Your task to perform on an android device: delete the emails in spam in the gmail app Image 0: 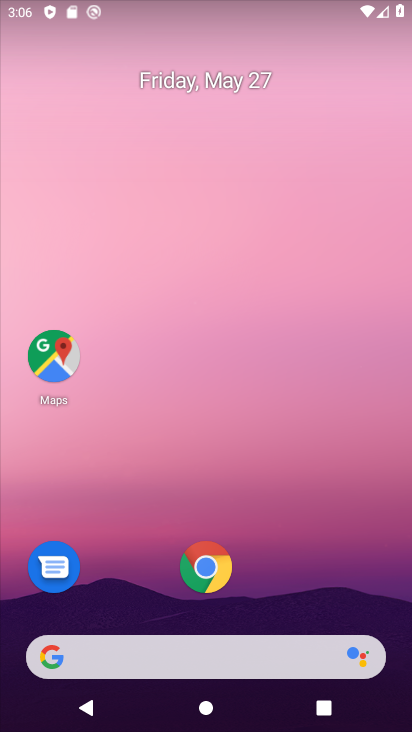
Step 0: drag from (147, 566) to (262, 141)
Your task to perform on an android device: delete the emails in spam in the gmail app Image 1: 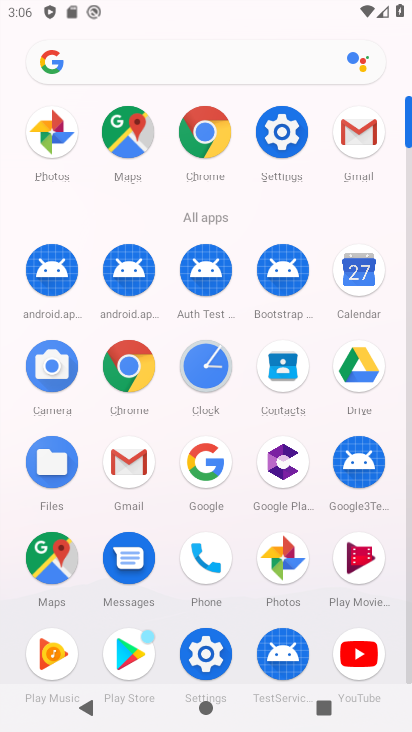
Step 1: click (351, 132)
Your task to perform on an android device: delete the emails in spam in the gmail app Image 2: 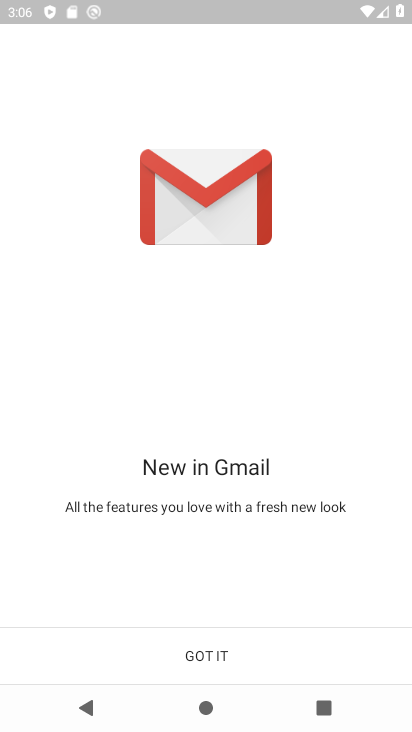
Step 2: click (205, 661)
Your task to perform on an android device: delete the emails in spam in the gmail app Image 3: 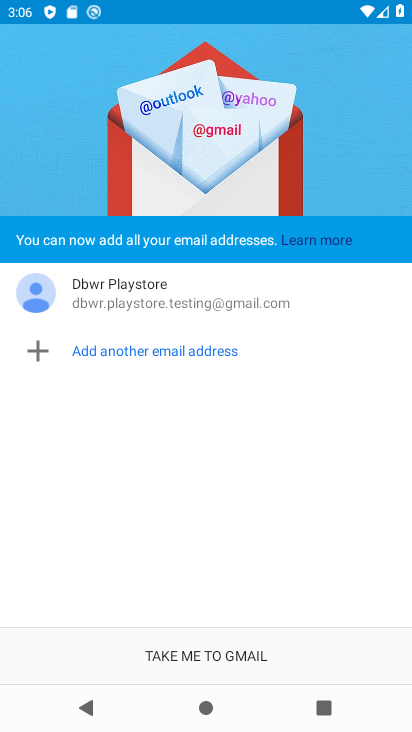
Step 3: click (188, 655)
Your task to perform on an android device: delete the emails in spam in the gmail app Image 4: 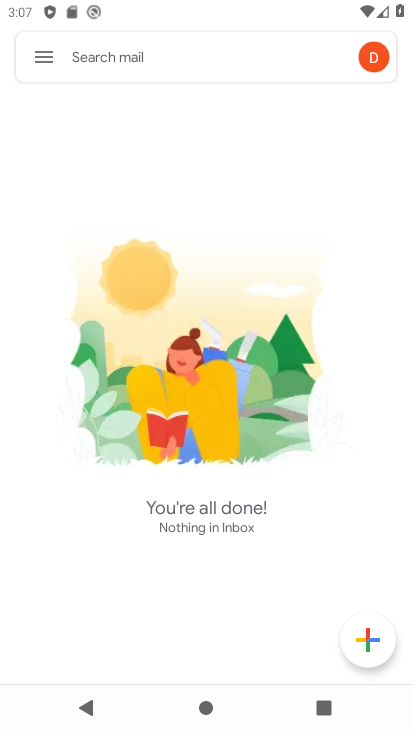
Step 4: click (40, 57)
Your task to perform on an android device: delete the emails in spam in the gmail app Image 5: 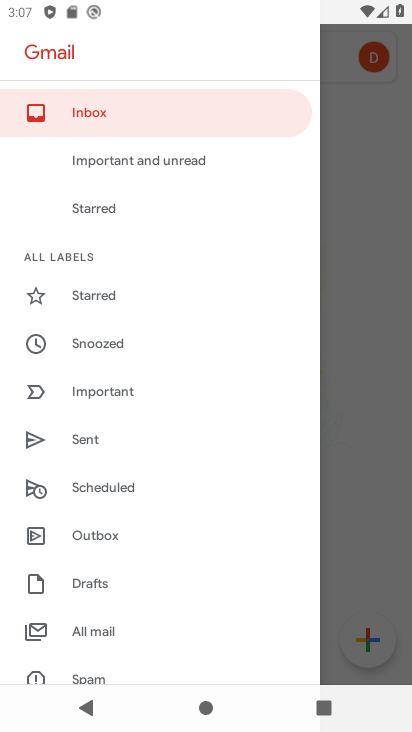
Step 5: click (79, 674)
Your task to perform on an android device: delete the emails in spam in the gmail app Image 6: 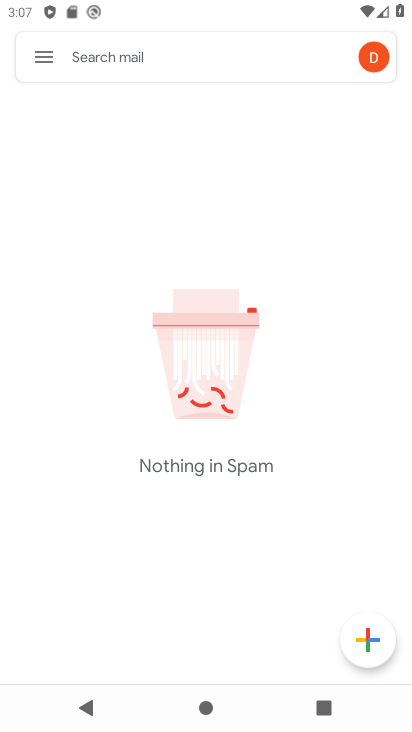
Step 6: task complete